Your task to perform on an android device: Open Maps and search for coffee Image 0: 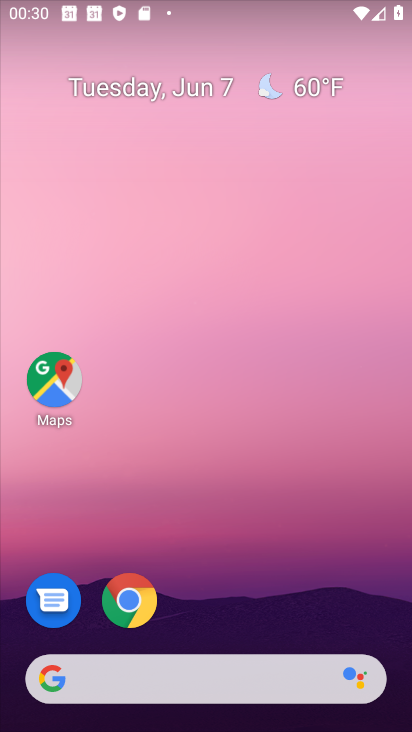
Step 0: drag from (215, 704) to (158, 120)
Your task to perform on an android device: Open Maps and search for coffee Image 1: 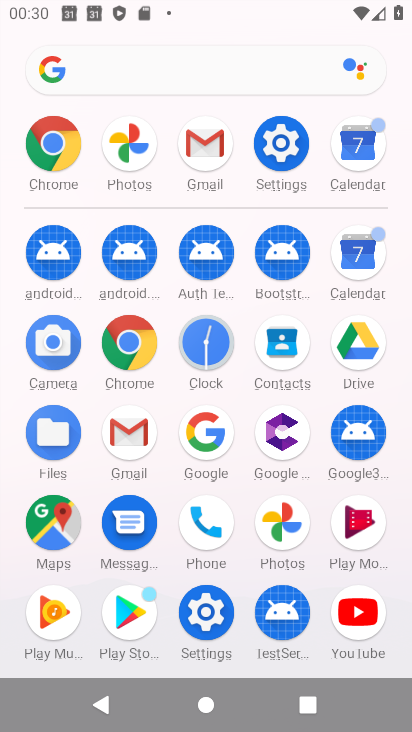
Step 1: click (59, 521)
Your task to perform on an android device: Open Maps and search for coffee Image 2: 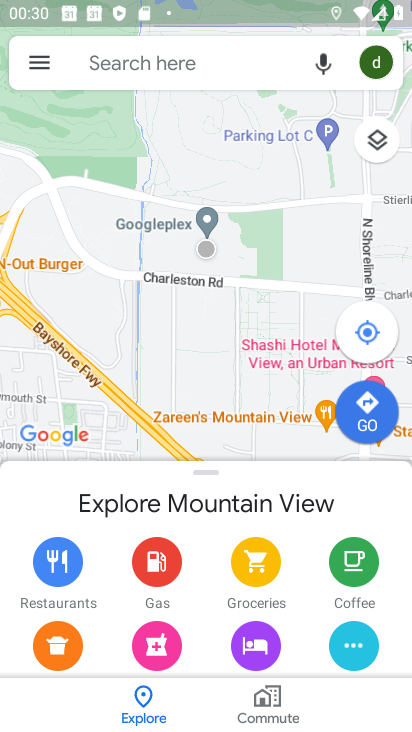
Step 2: click (158, 59)
Your task to perform on an android device: Open Maps and search for coffee Image 3: 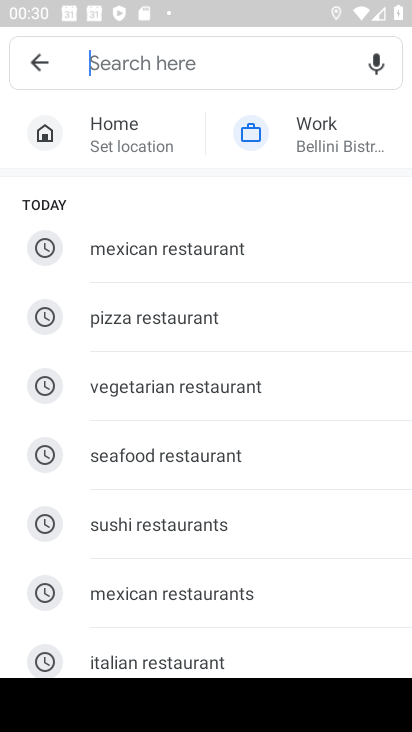
Step 3: type "coffee"
Your task to perform on an android device: Open Maps and search for coffee Image 4: 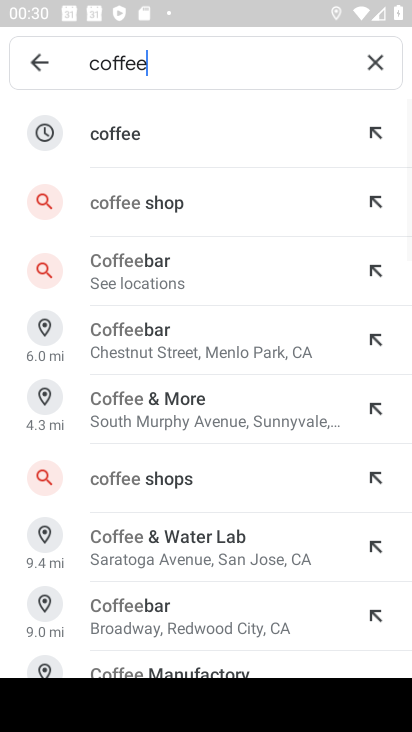
Step 4: click (113, 128)
Your task to perform on an android device: Open Maps and search for coffee Image 5: 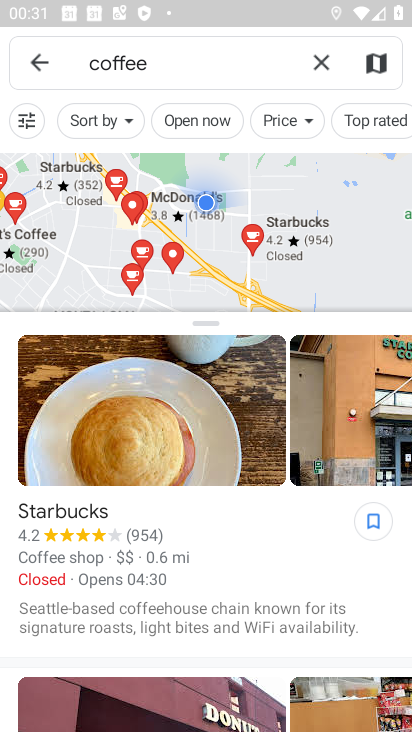
Step 5: task complete